Your task to perform on an android device: Open my contact list Image 0: 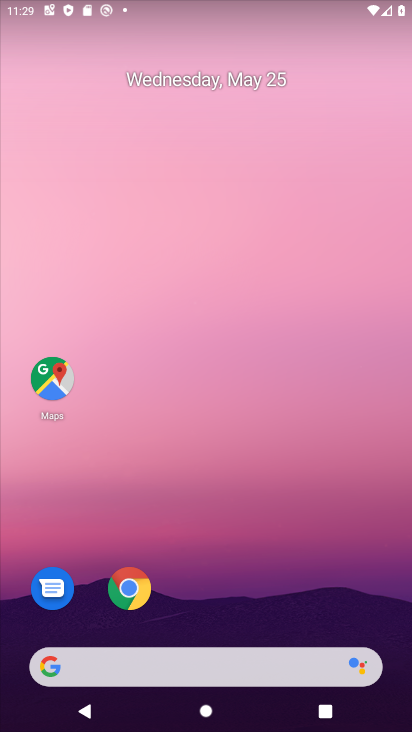
Step 0: drag from (268, 566) to (187, 72)
Your task to perform on an android device: Open my contact list Image 1: 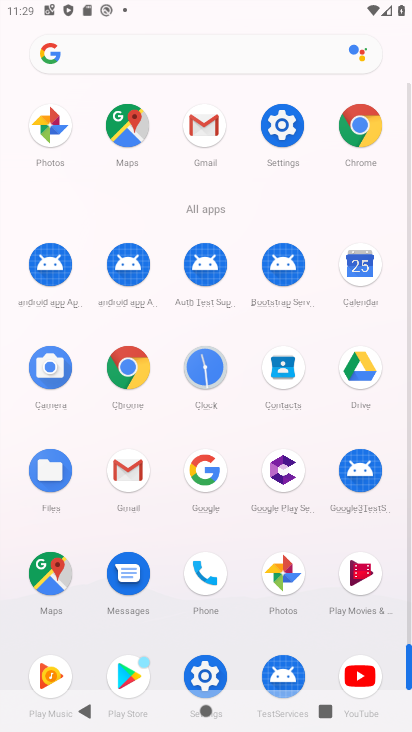
Step 1: drag from (3, 599) to (4, 269)
Your task to perform on an android device: Open my contact list Image 2: 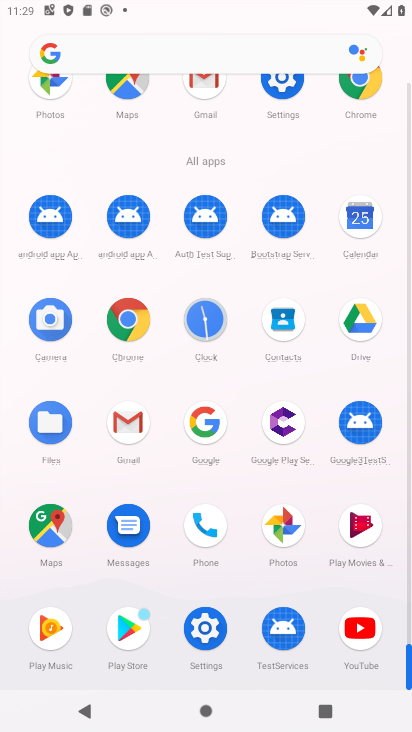
Step 2: click (282, 310)
Your task to perform on an android device: Open my contact list Image 3: 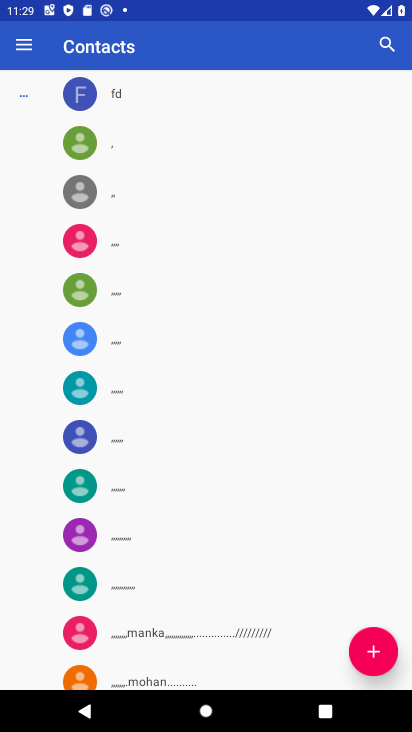
Step 3: task complete